Your task to perform on an android device: Open Youtube and go to "Your channel" Image 0: 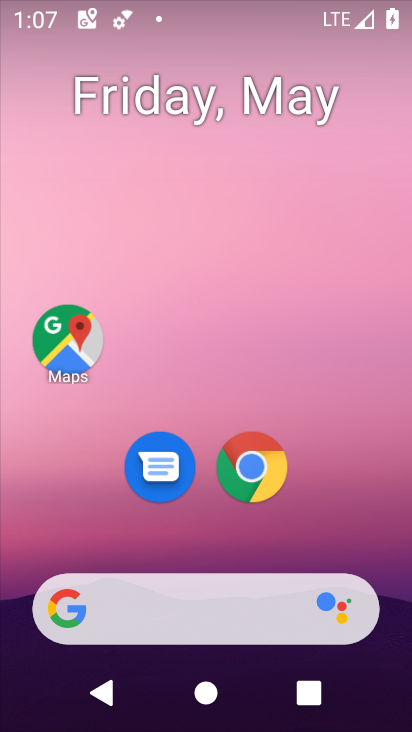
Step 0: drag from (344, 444) to (398, 15)
Your task to perform on an android device: Open Youtube and go to "Your channel" Image 1: 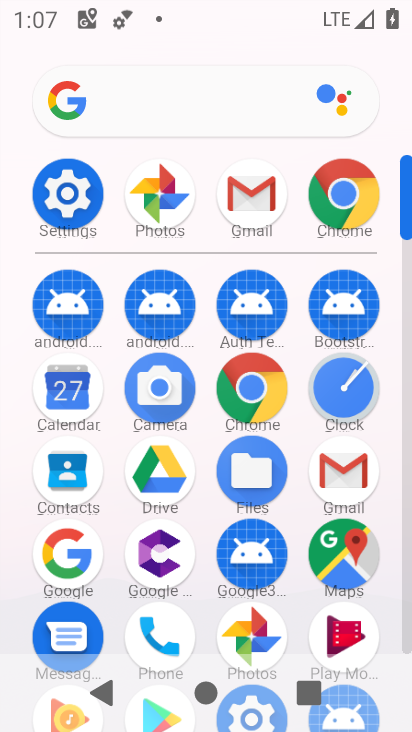
Step 1: drag from (393, 526) to (404, 223)
Your task to perform on an android device: Open Youtube and go to "Your channel" Image 2: 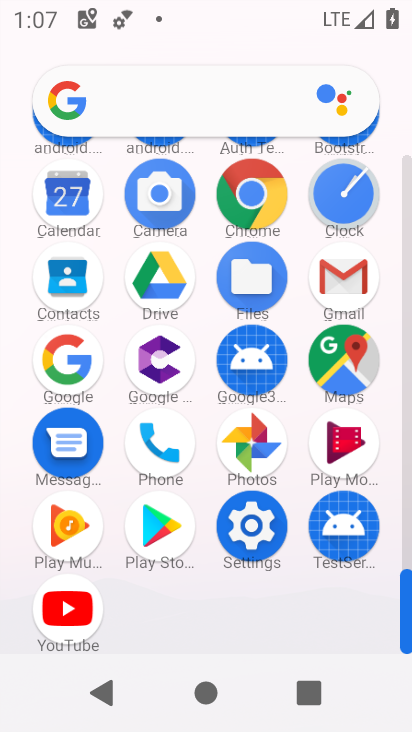
Step 2: click (83, 606)
Your task to perform on an android device: Open Youtube and go to "Your channel" Image 3: 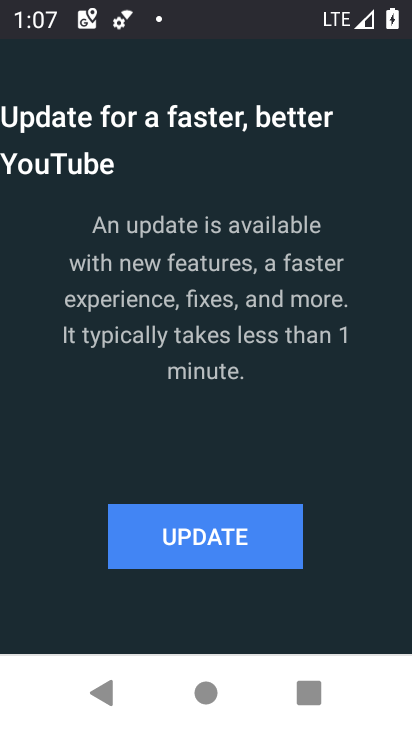
Step 3: click (164, 554)
Your task to perform on an android device: Open Youtube and go to "Your channel" Image 4: 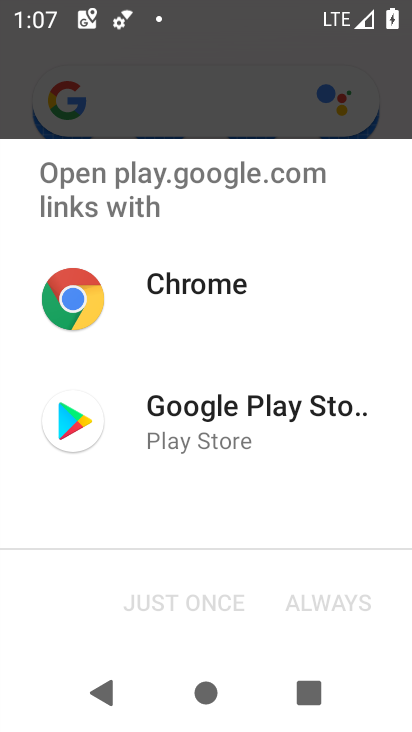
Step 4: click (174, 435)
Your task to perform on an android device: Open Youtube and go to "Your channel" Image 5: 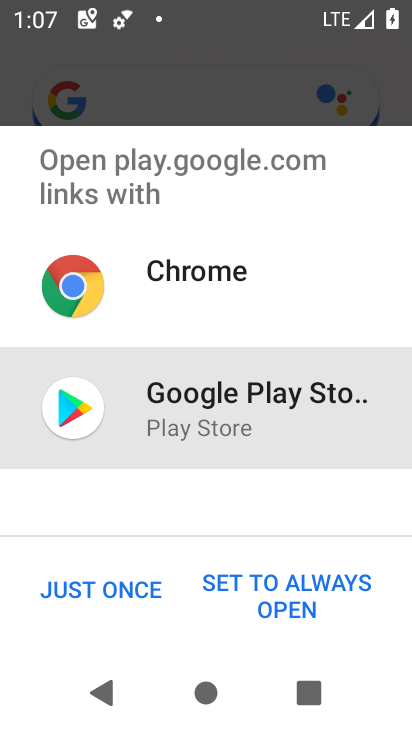
Step 5: click (126, 596)
Your task to perform on an android device: Open Youtube and go to "Your channel" Image 6: 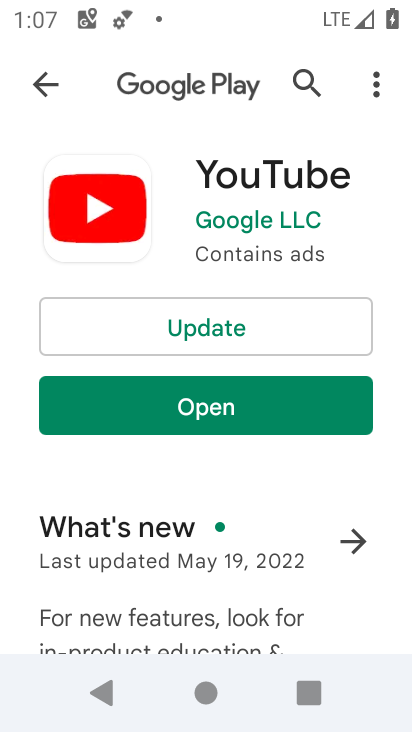
Step 6: click (222, 316)
Your task to perform on an android device: Open Youtube and go to "Your channel" Image 7: 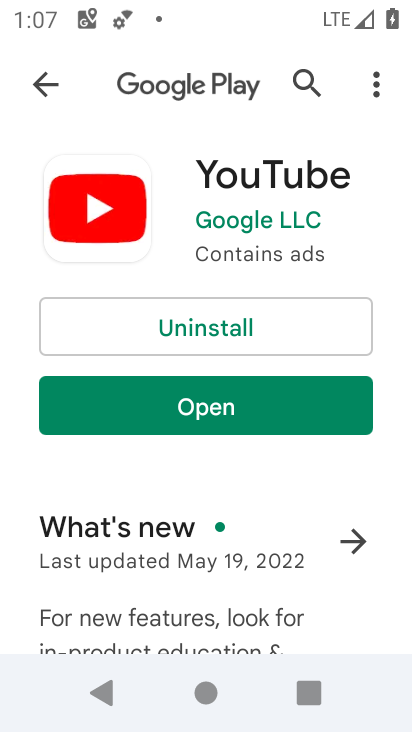
Step 7: click (198, 404)
Your task to perform on an android device: Open Youtube and go to "Your channel" Image 8: 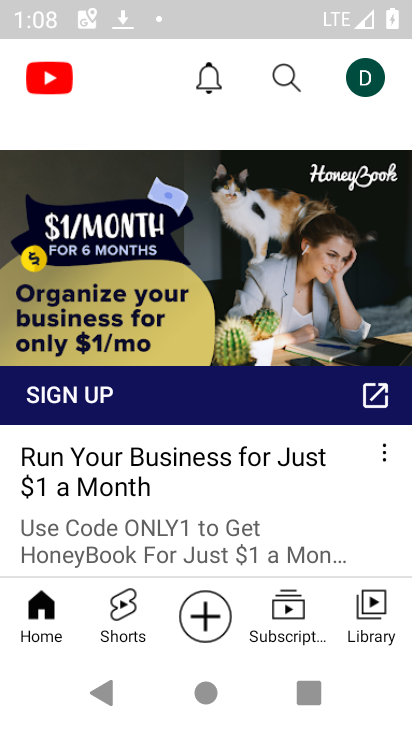
Step 8: click (363, 71)
Your task to perform on an android device: Open Youtube and go to "Your channel" Image 9: 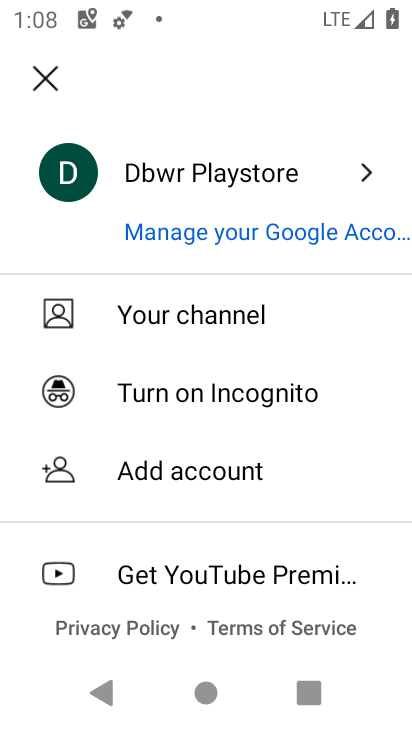
Step 9: drag from (168, 499) to (177, 264)
Your task to perform on an android device: Open Youtube and go to "Your channel" Image 10: 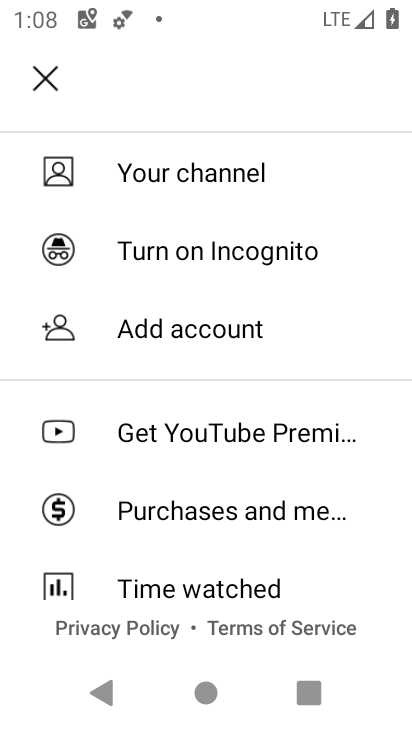
Step 10: click (140, 170)
Your task to perform on an android device: Open Youtube and go to "Your channel" Image 11: 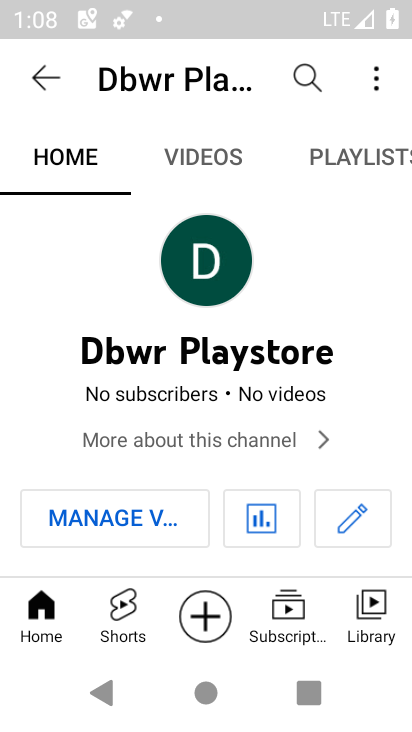
Step 11: task complete